Your task to perform on an android device: create a new album in the google photos Image 0: 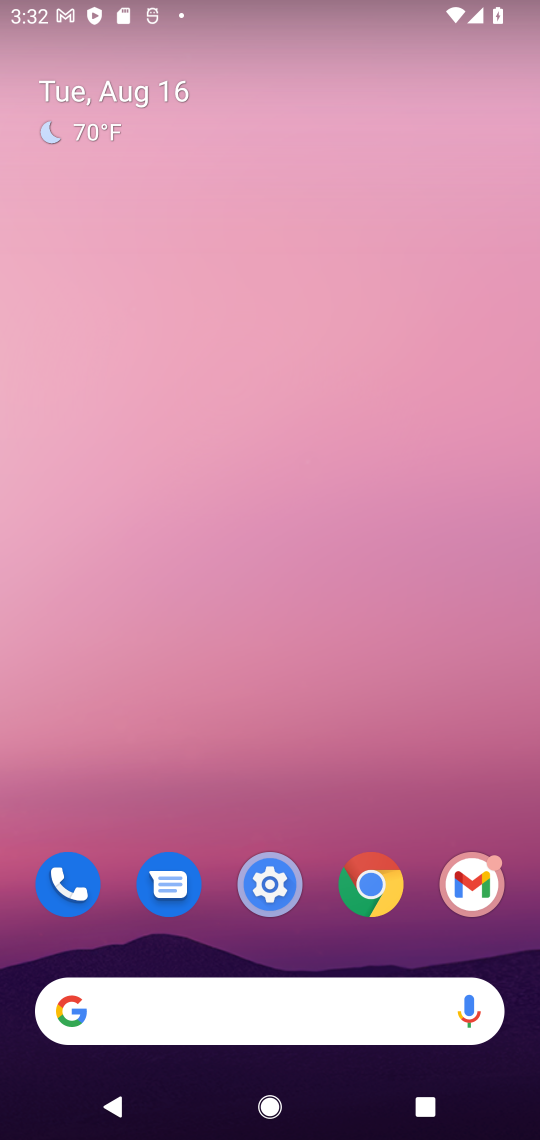
Step 0: drag from (312, 819) to (317, 89)
Your task to perform on an android device: create a new album in the google photos Image 1: 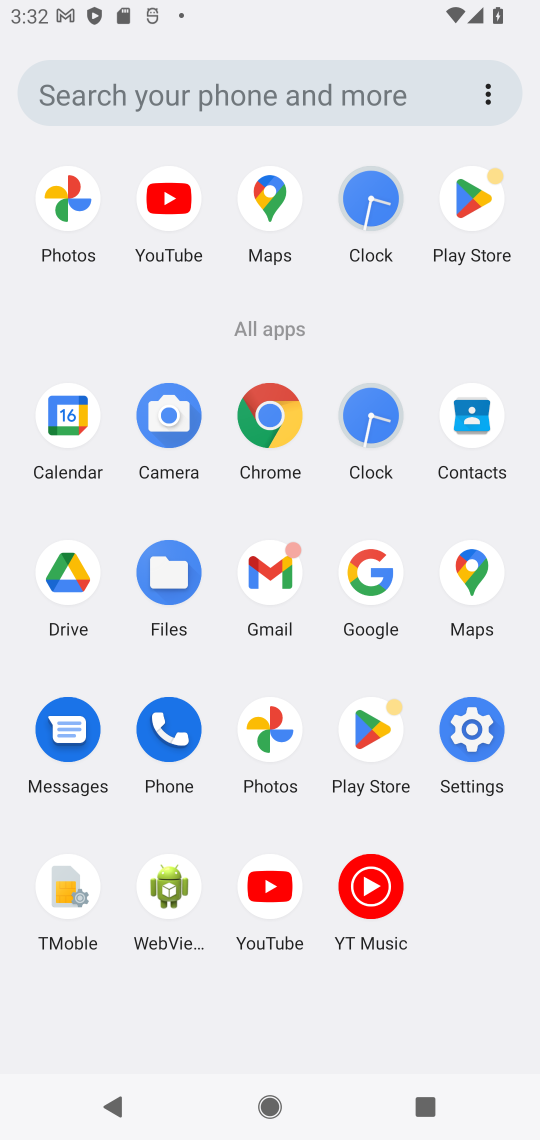
Step 1: click (68, 203)
Your task to perform on an android device: create a new album in the google photos Image 2: 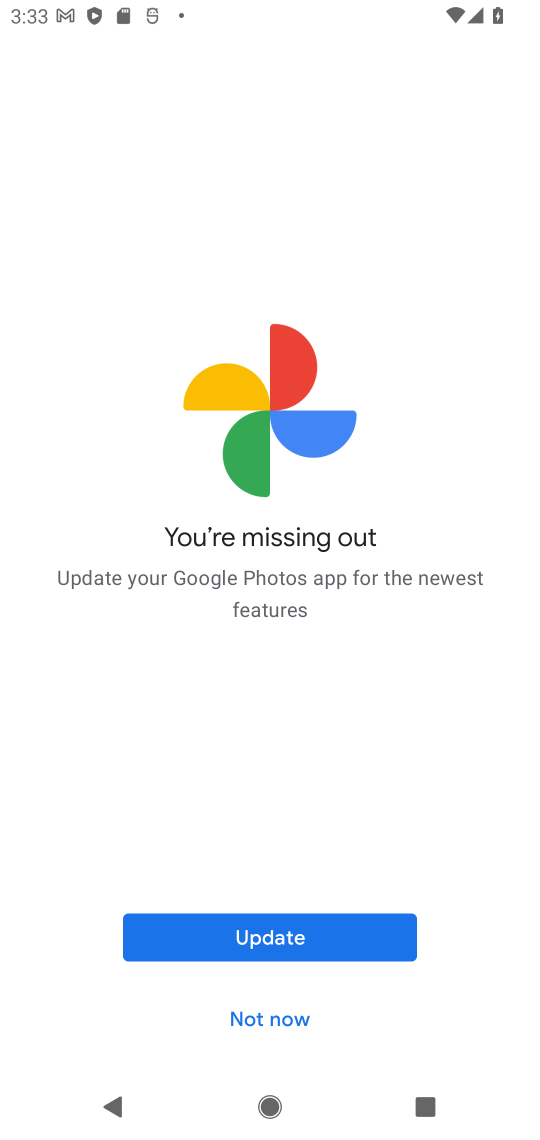
Step 2: click (314, 1020)
Your task to perform on an android device: create a new album in the google photos Image 3: 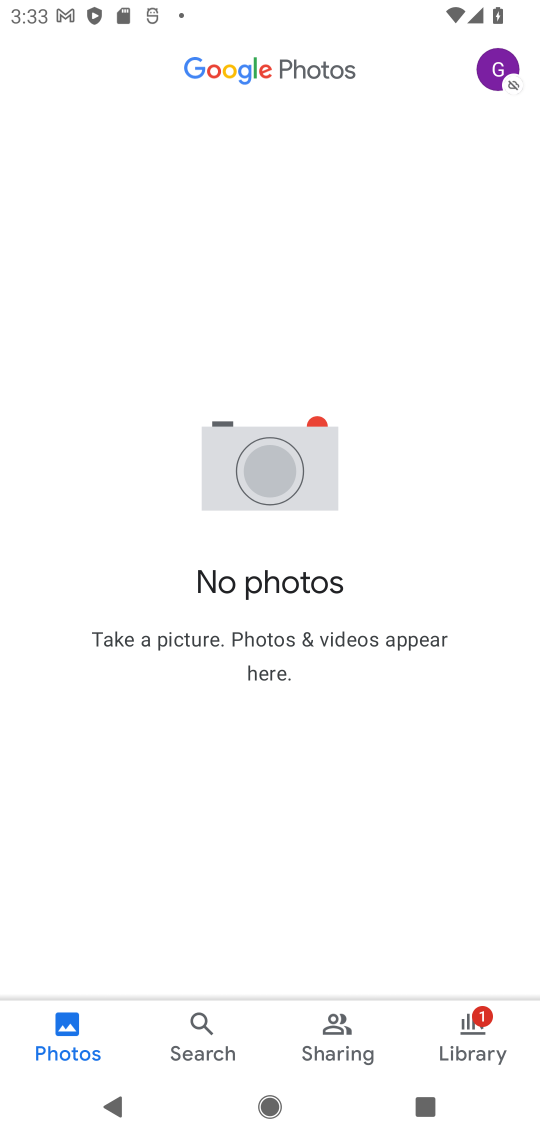
Step 3: click (499, 66)
Your task to perform on an android device: create a new album in the google photos Image 4: 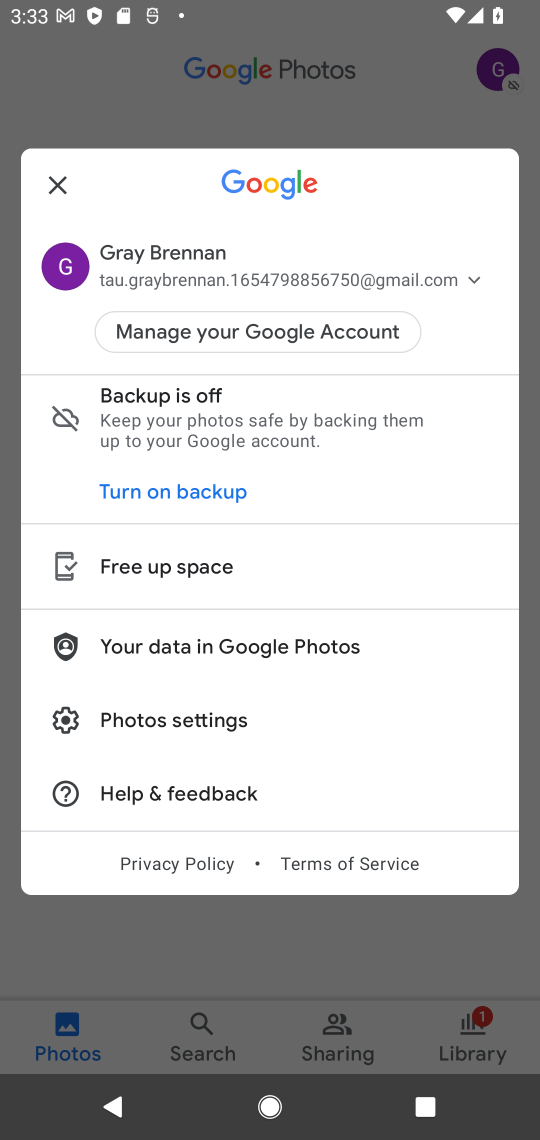
Step 4: click (413, 95)
Your task to perform on an android device: create a new album in the google photos Image 5: 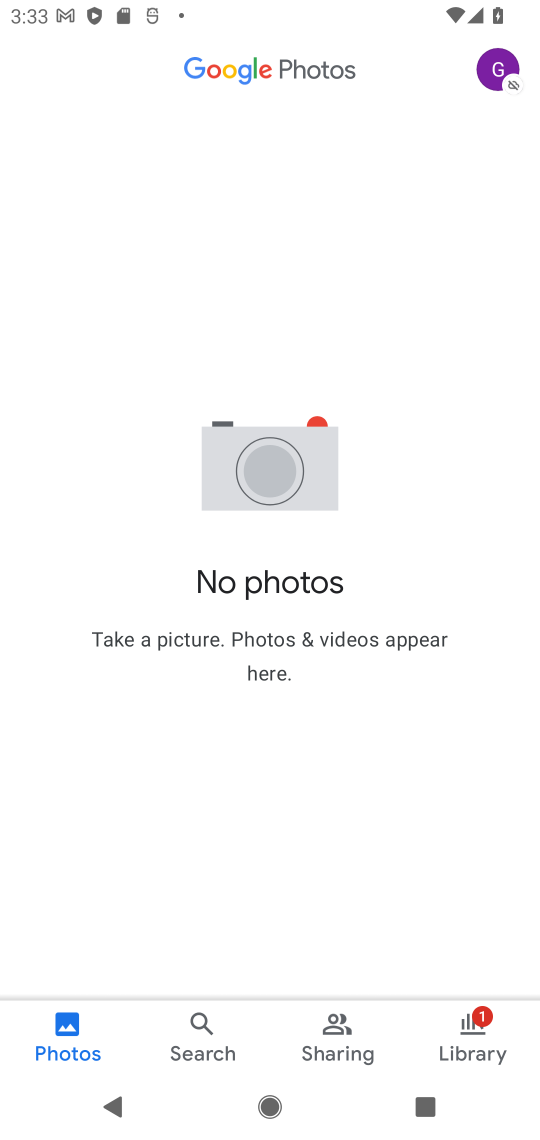
Step 5: click (40, 1009)
Your task to perform on an android device: create a new album in the google photos Image 6: 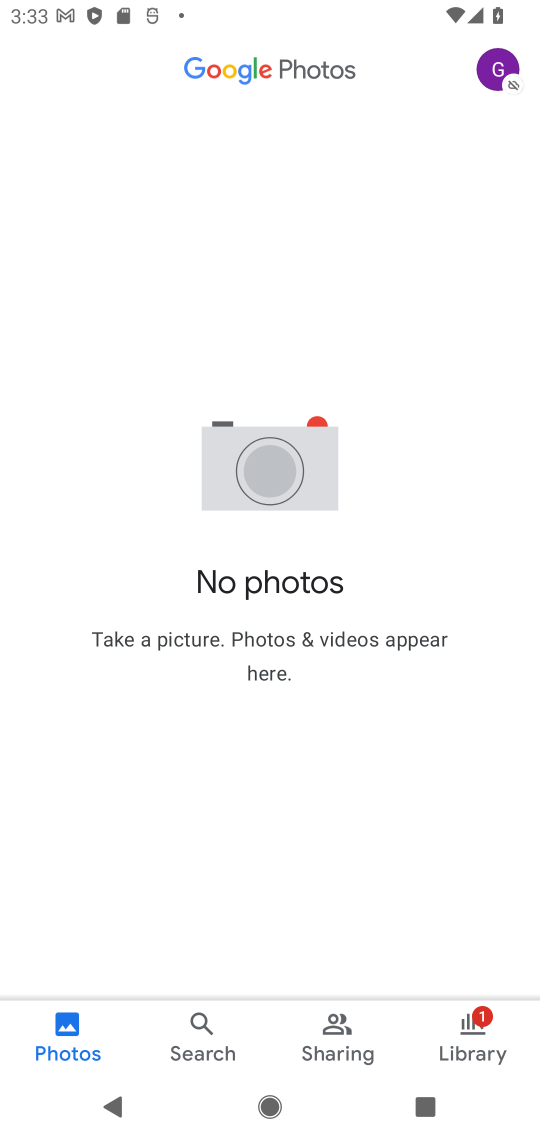
Step 6: click (494, 88)
Your task to perform on an android device: create a new album in the google photos Image 7: 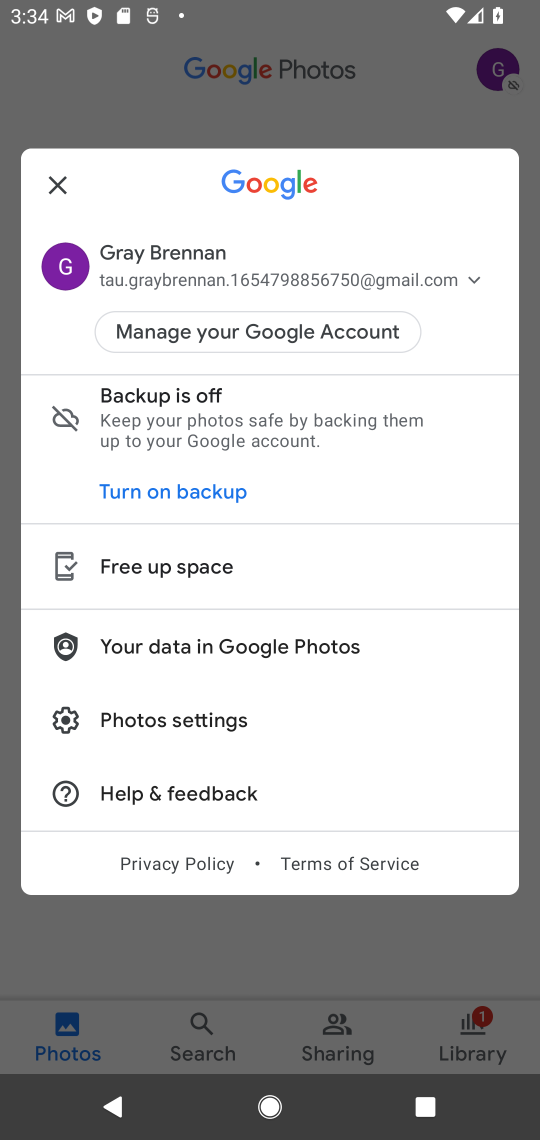
Step 7: click (170, 942)
Your task to perform on an android device: create a new album in the google photos Image 8: 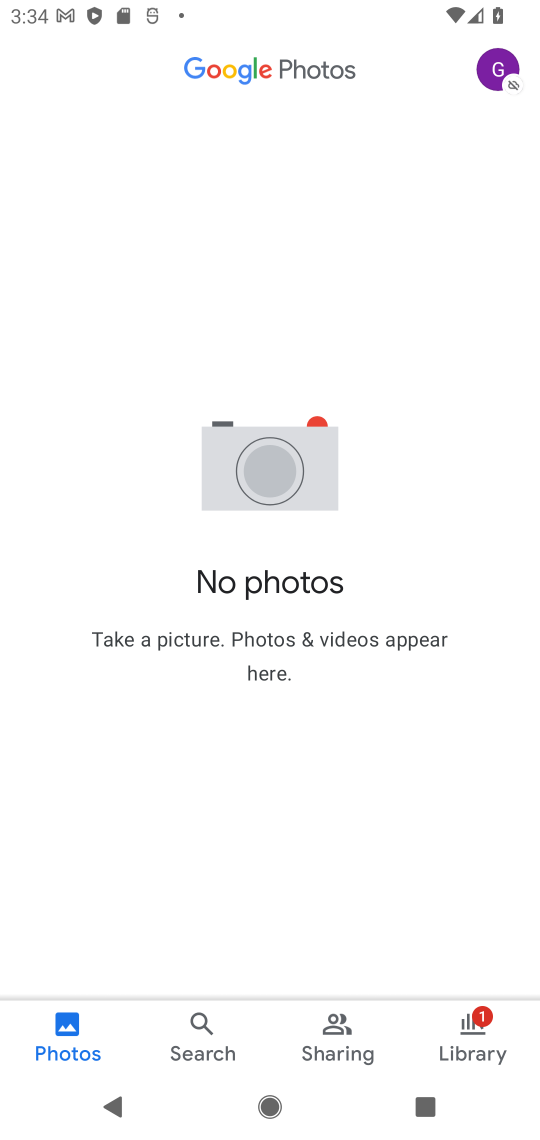
Step 8: click (354, 1039)
Your task to perform on an android device: create a new album in the google photos Image 9: 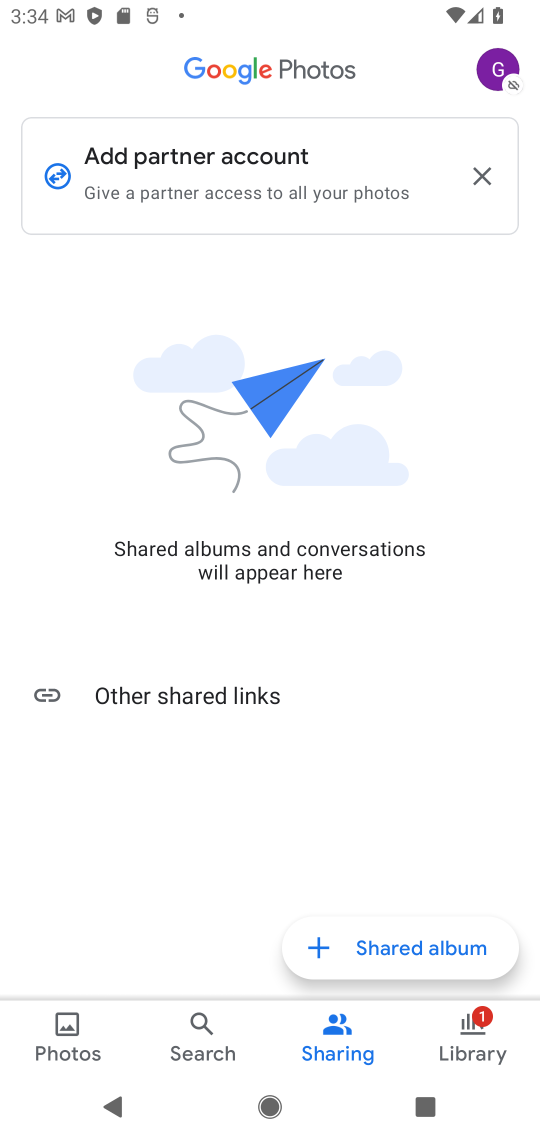
Step 9: click (68, 1039)
Your task to perform on an android device: create a new album in the google photos Image 10: 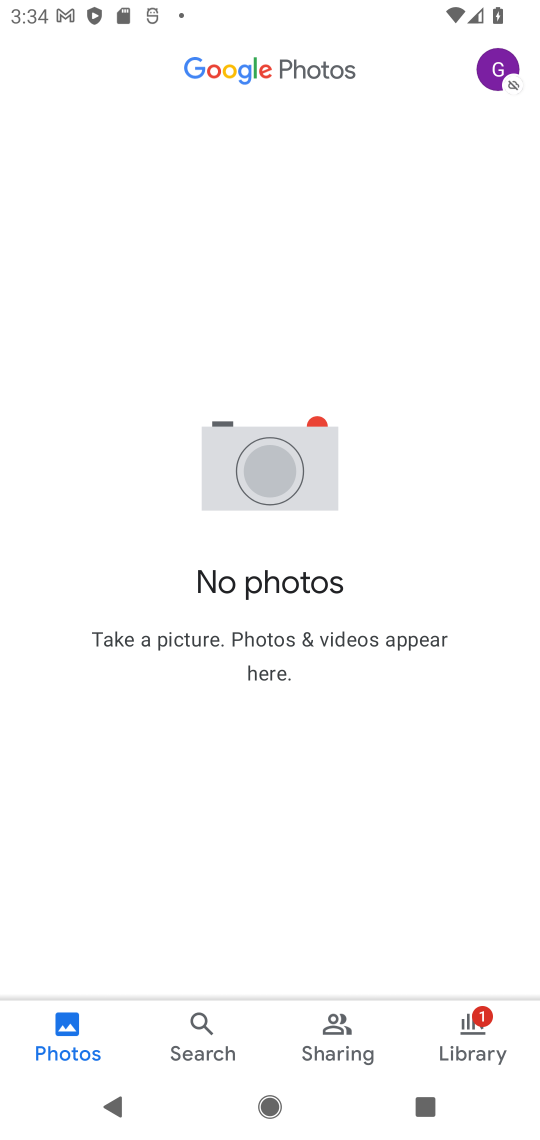
Step 10: click (499, 82)
Your task to perform on an android device: create a new album in the google photos Image 11: 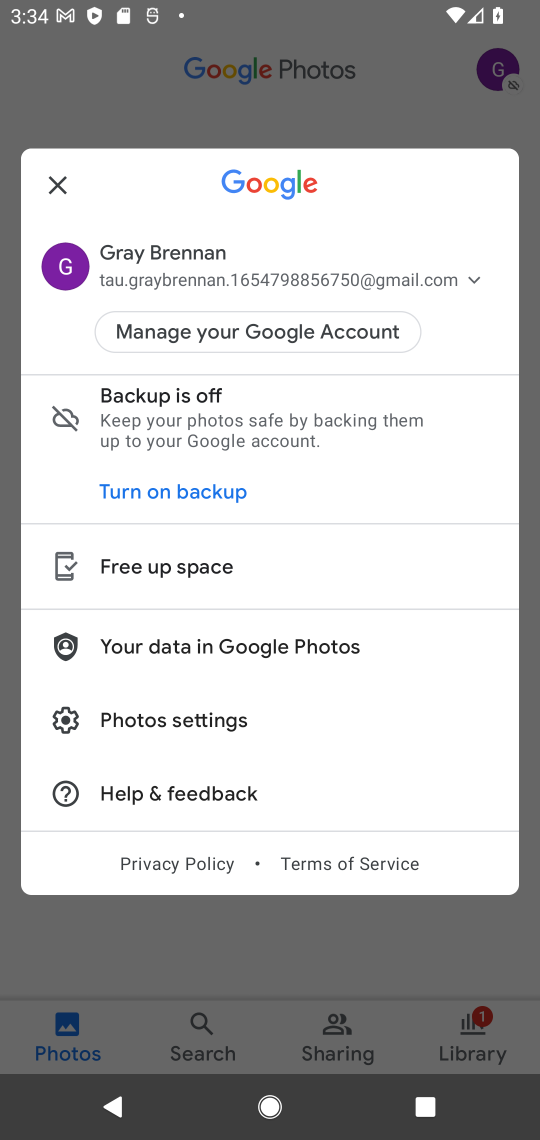
Step 11: task complete